Your task to perform on an android device: Search for bose quietcomfort 35 on costco, select the first entry, add it to the cart, then select checkout. Image 0: 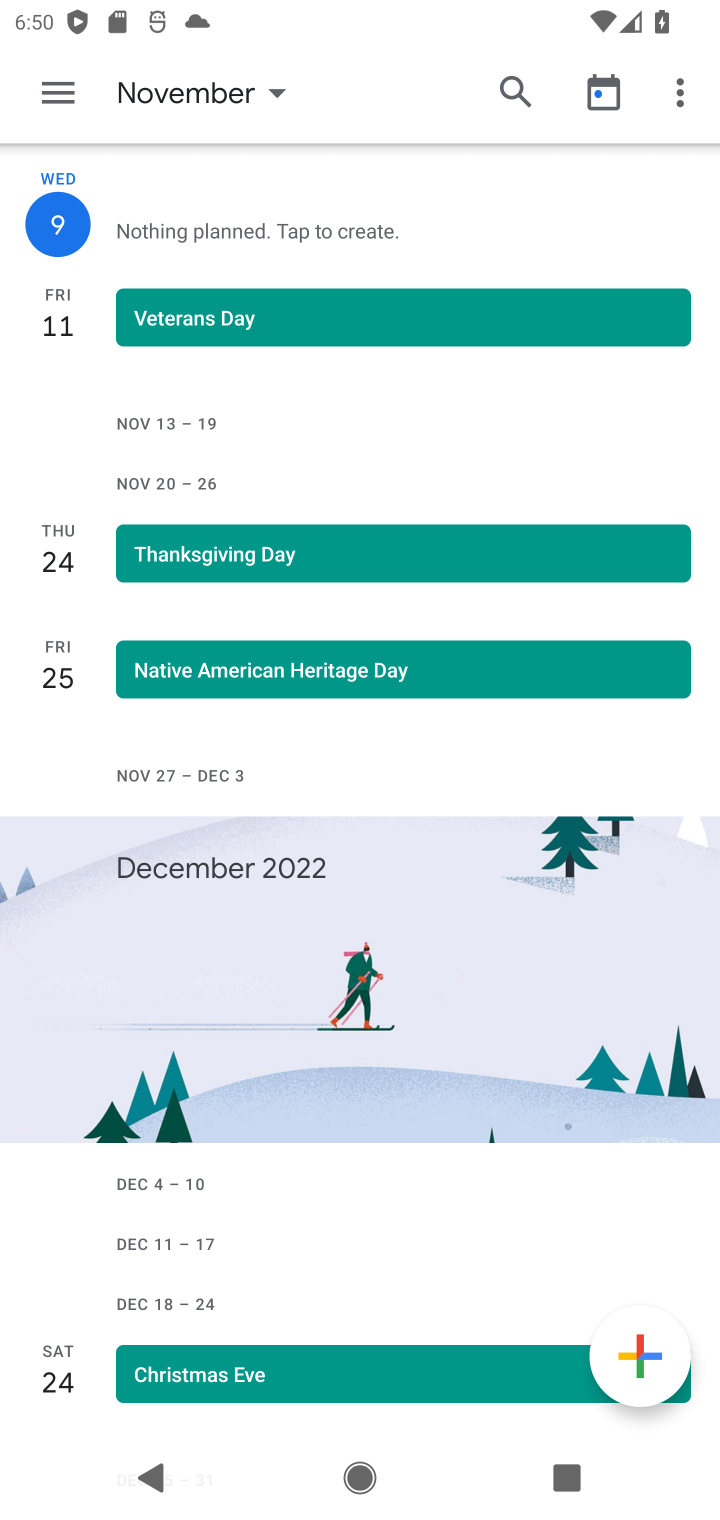
Step 0: press home button
Your task to perform on an android device: Search for bose quietcomfort 35 on costco, select the first entry, add it to the cart, then select checkout. Image 1: 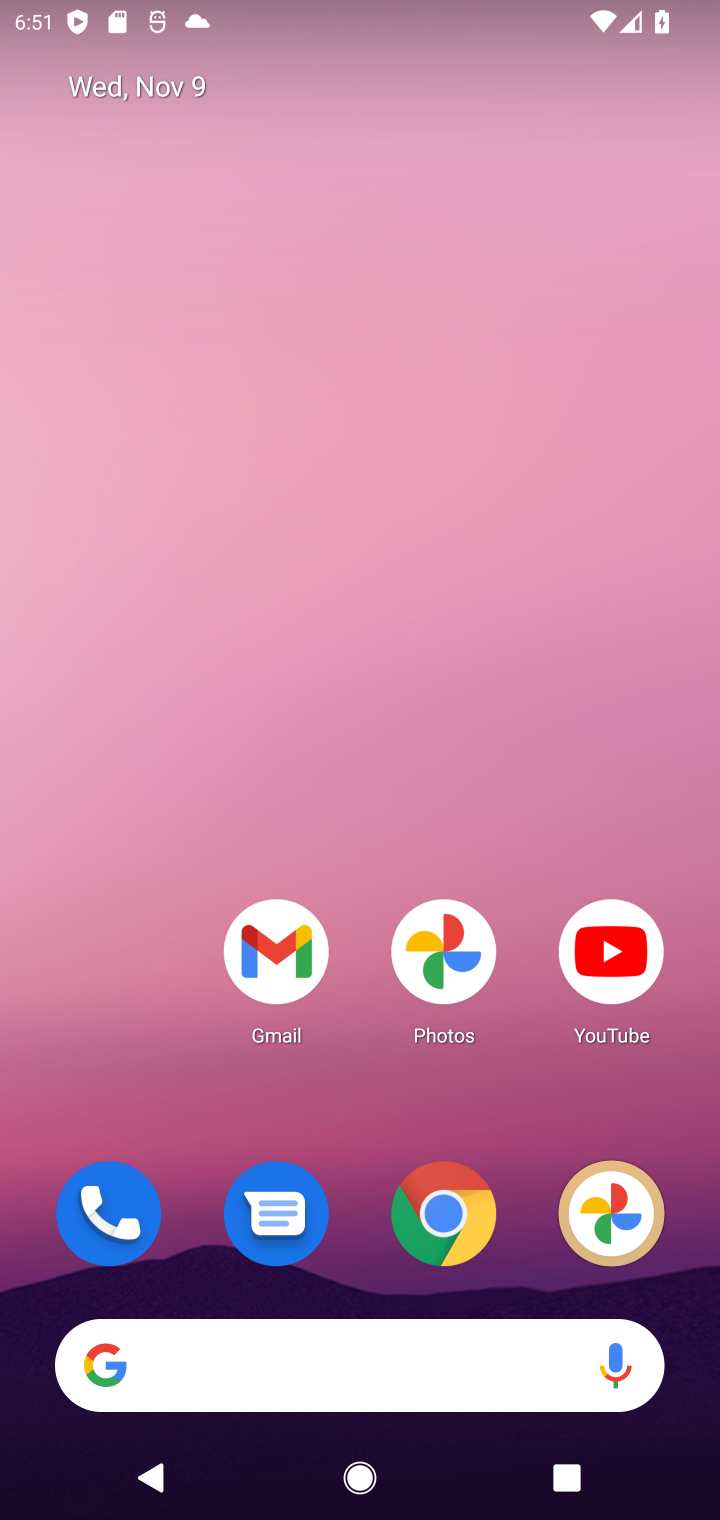
Step 1: click (452, 1222)
Your task to perform on an android device: Search for bose quietcomfort 35 on costco, select the first entry, add it to the cart, then select checkout. Image 2: 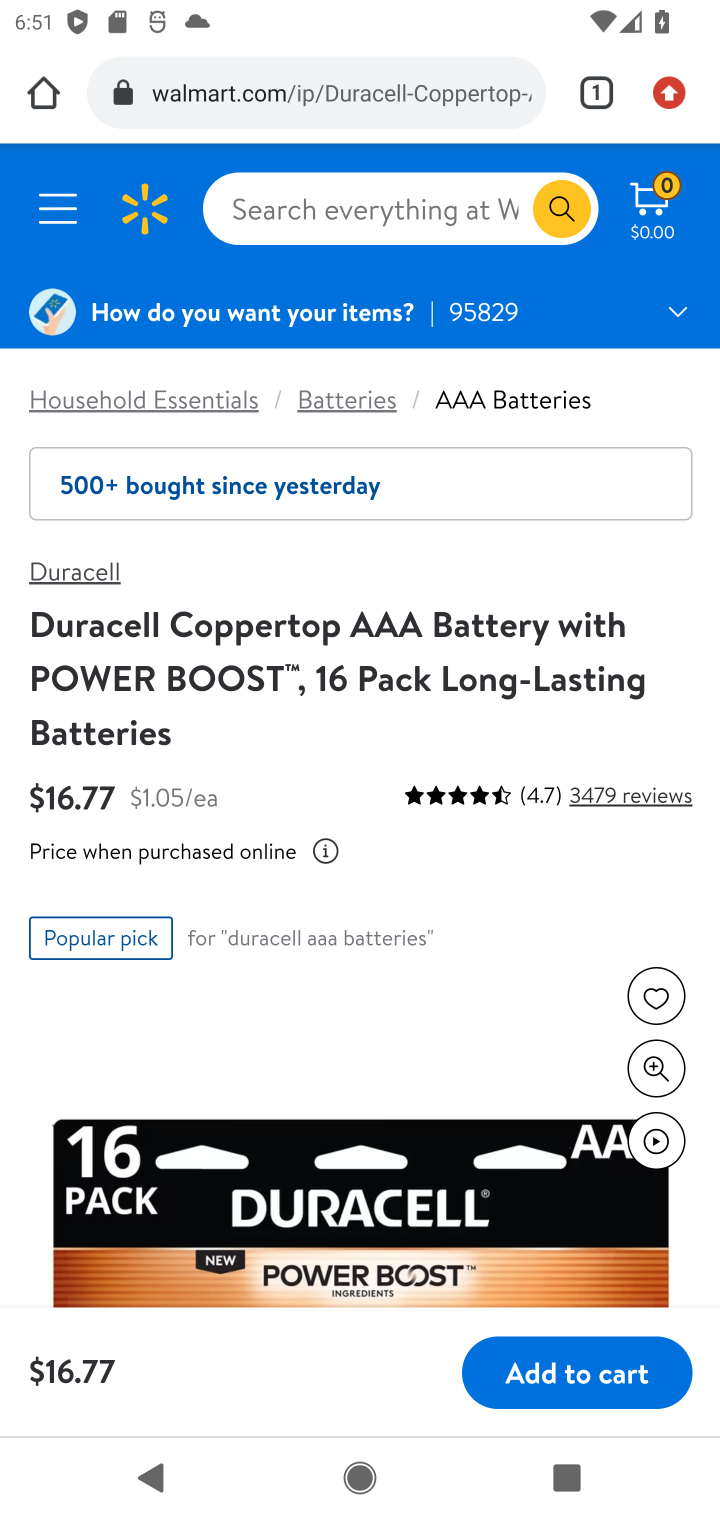
Step 2: click (318, 80)
Your task to perform on an android device: Search for bose quietcomfort 35 on costco, select the first entry, add it to the cart, then select checkout. Image 3: 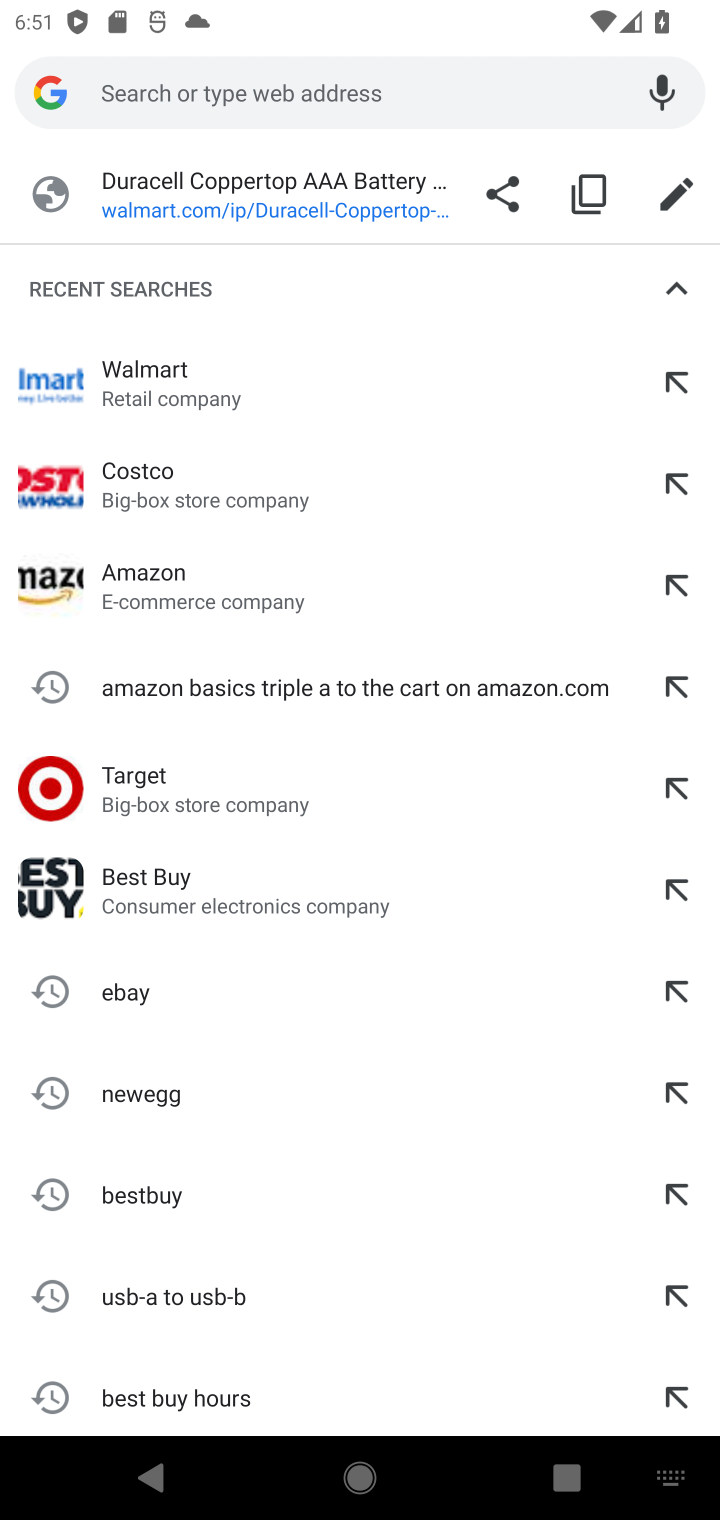
Step 3: type "costco"
Your task to perform on an android device: Search for bose quietcomfort 35 on costco, select the first entry, add it to the cart, then select checkout. Image 4: 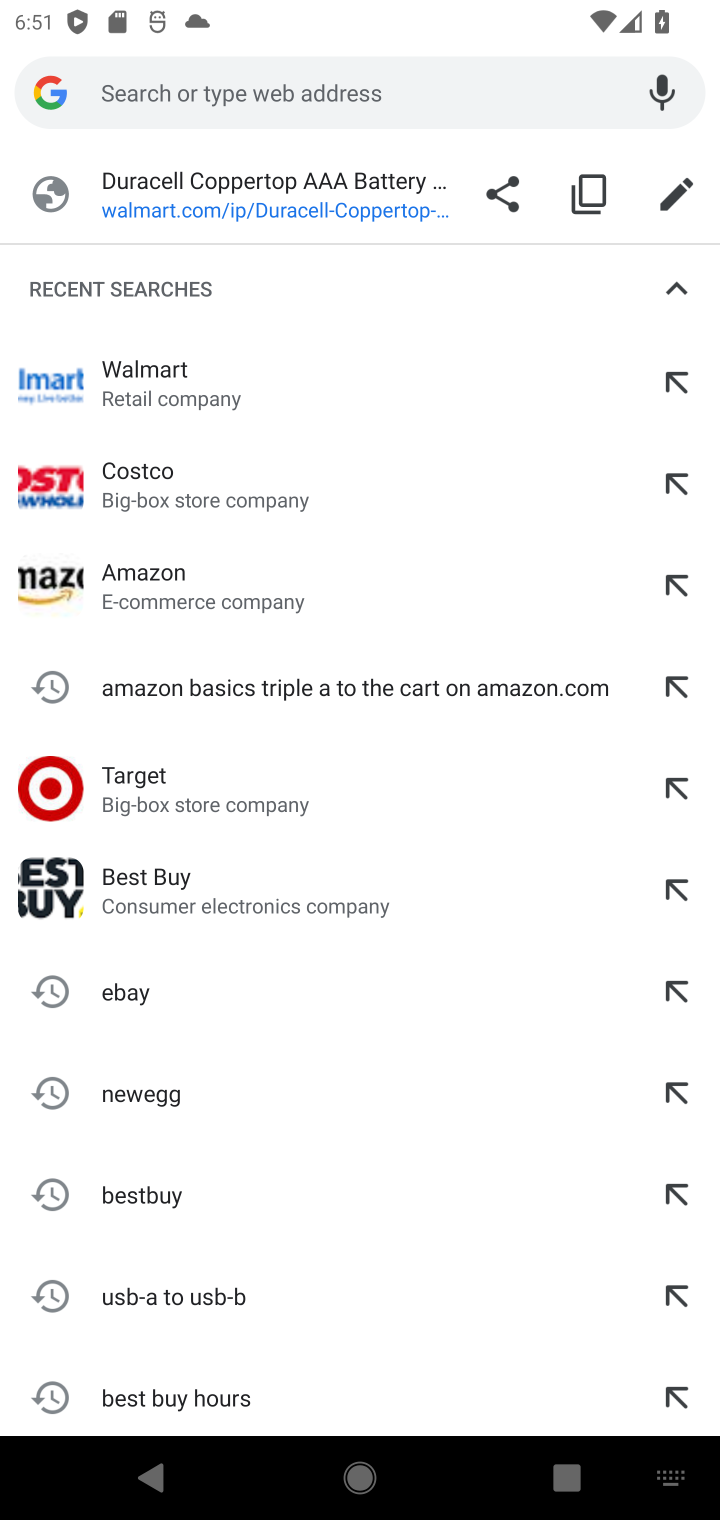
Step 4: click (141, 472)
Your task to perform on an android device: Search for bose quietcomfort 35 on costco, select the first entry, add it to the cart, then select checkout. Image 5: 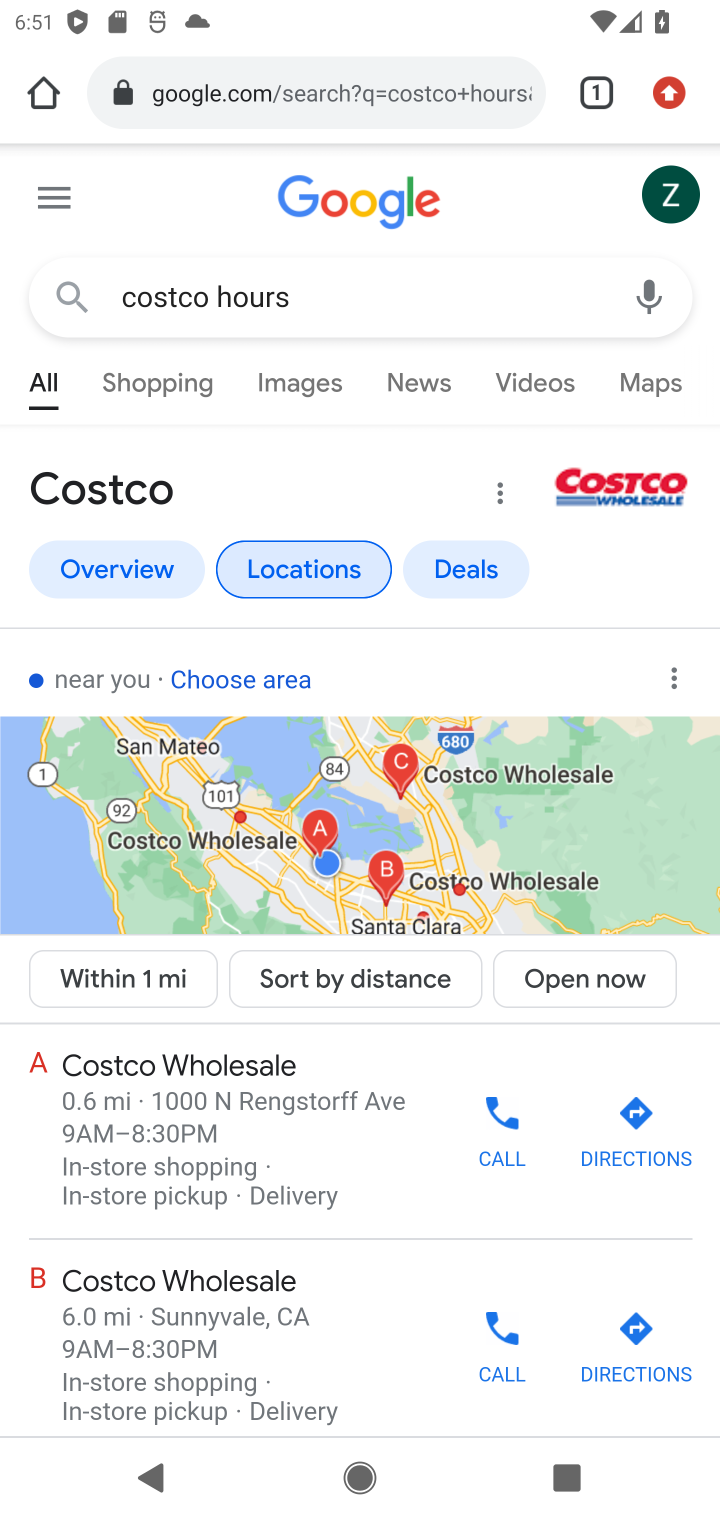
Step 5: drag from (286, 1076) to (366, 191)
Your task to perform on an android device: Search for bose quietcomfort 35 on costco, select the first entry, add it to the cart, then select checkout. Image 6: 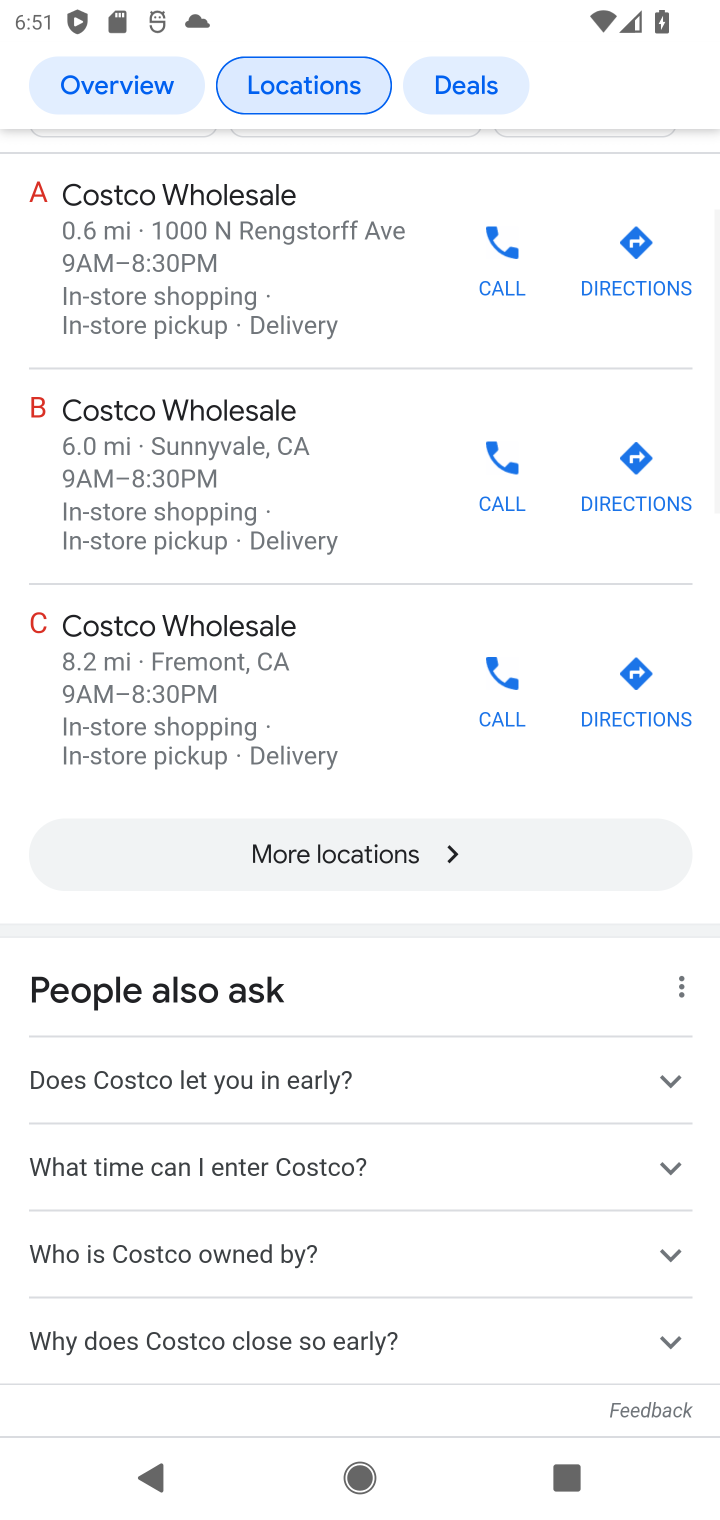
Step 6: drag from (136, 1281) to (179, 343)
Your task to perform on an android device: Search for bose quietcomfort 35 on costco, select the first entry, add it to the cart, then select checkout. Image 7: 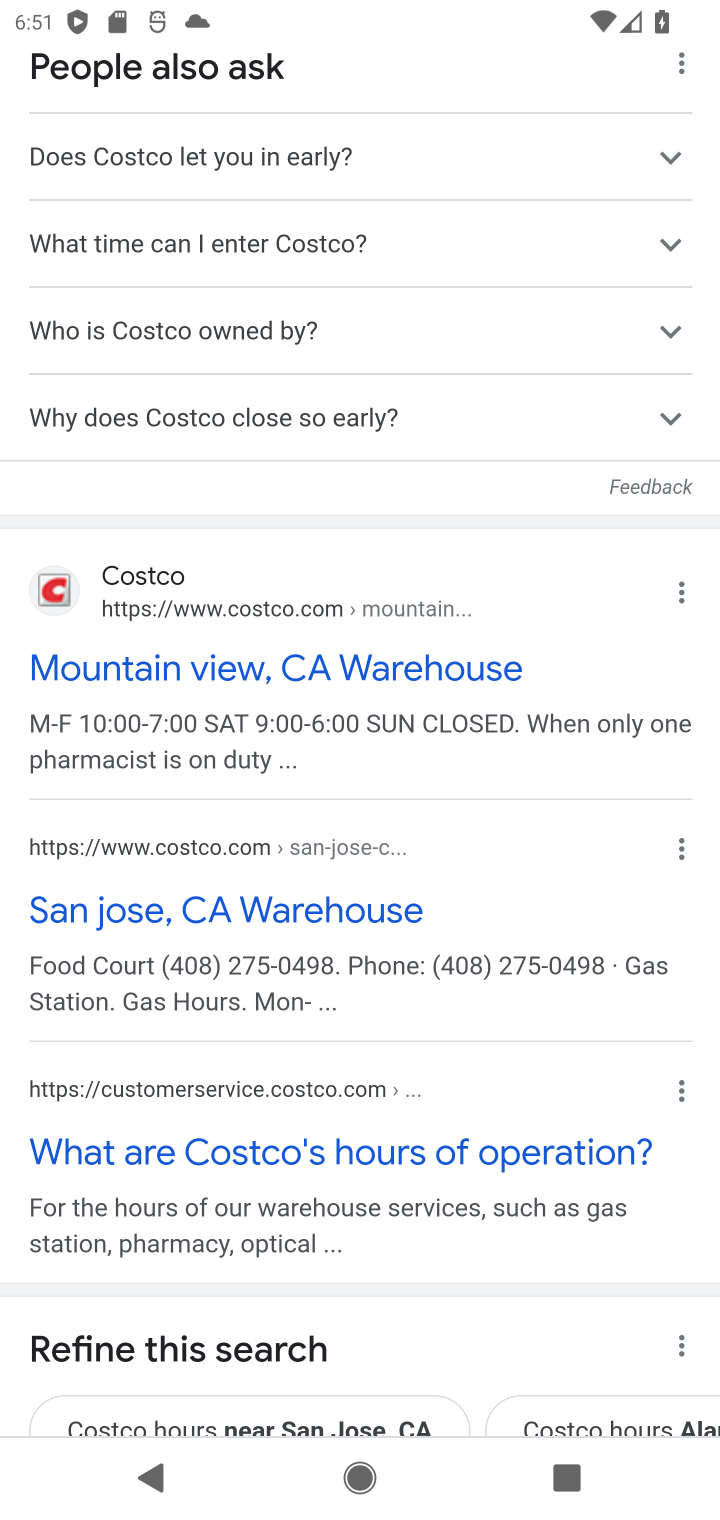
Step 7: click (142, 659)
Your task to perform on an android device: Search for bose quietcomfort 35 on costco, select the first entry, add it to the cart, then select checkout. Image 8: 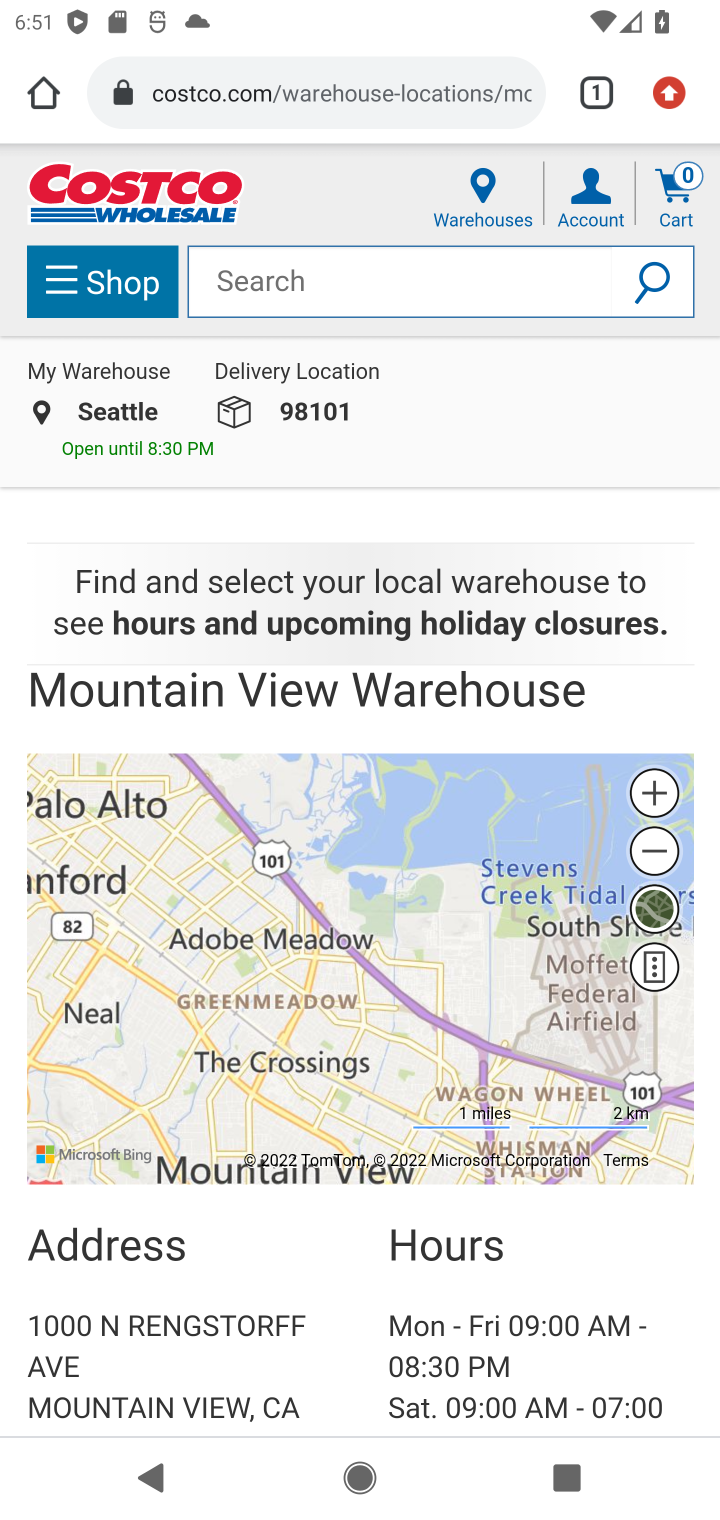
Step 8: drag from (280, 1201) to (534, 309)
Your task to perform on an android device: Search for bose quietcomfort 35 on costco, select the first entry, add it to the cart, then select checkout. Image 9: 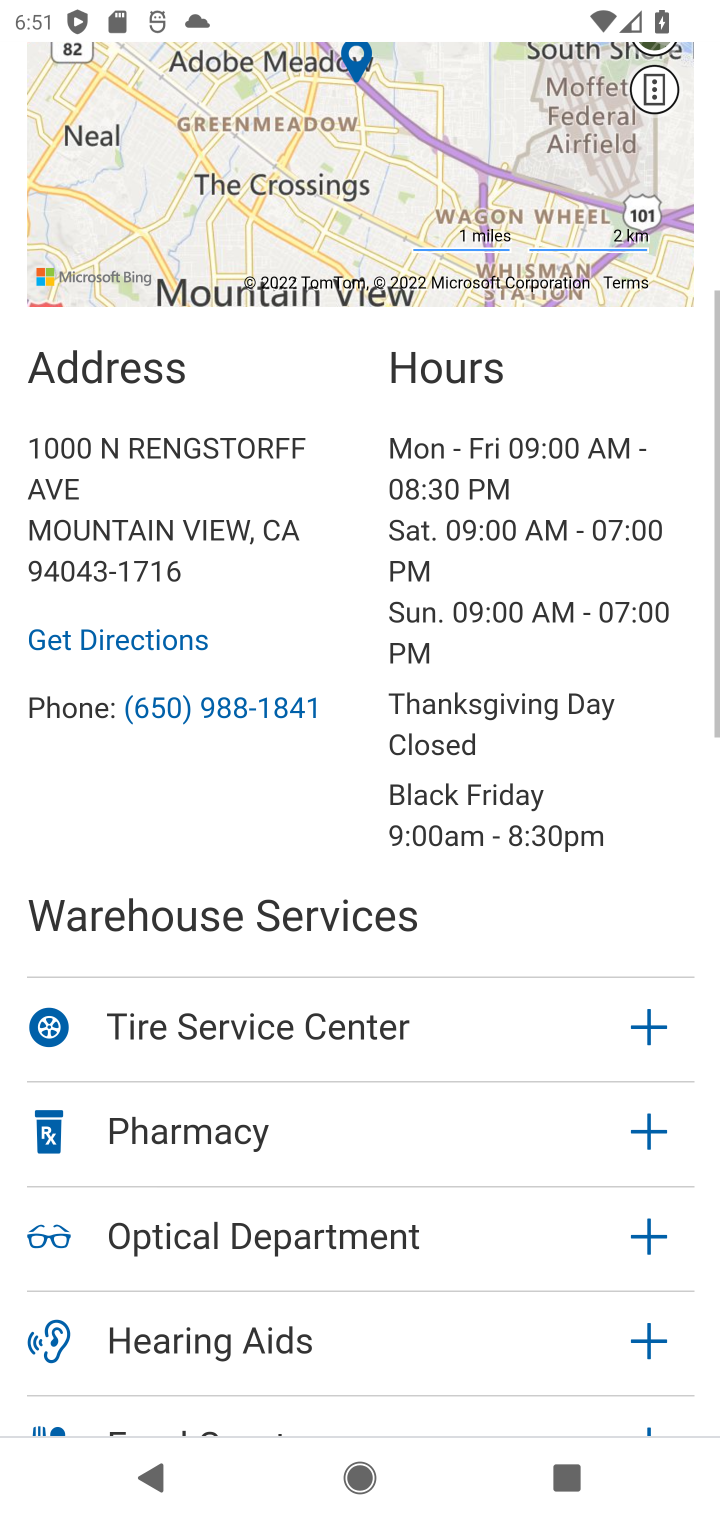
Step 9: drag from (275, 543) to (334, 1281)
Your task to perform on an android device: Search for bose quietcomfort 35 on costco, select the first entry, add it to the cart, then select checkout. Image 10: 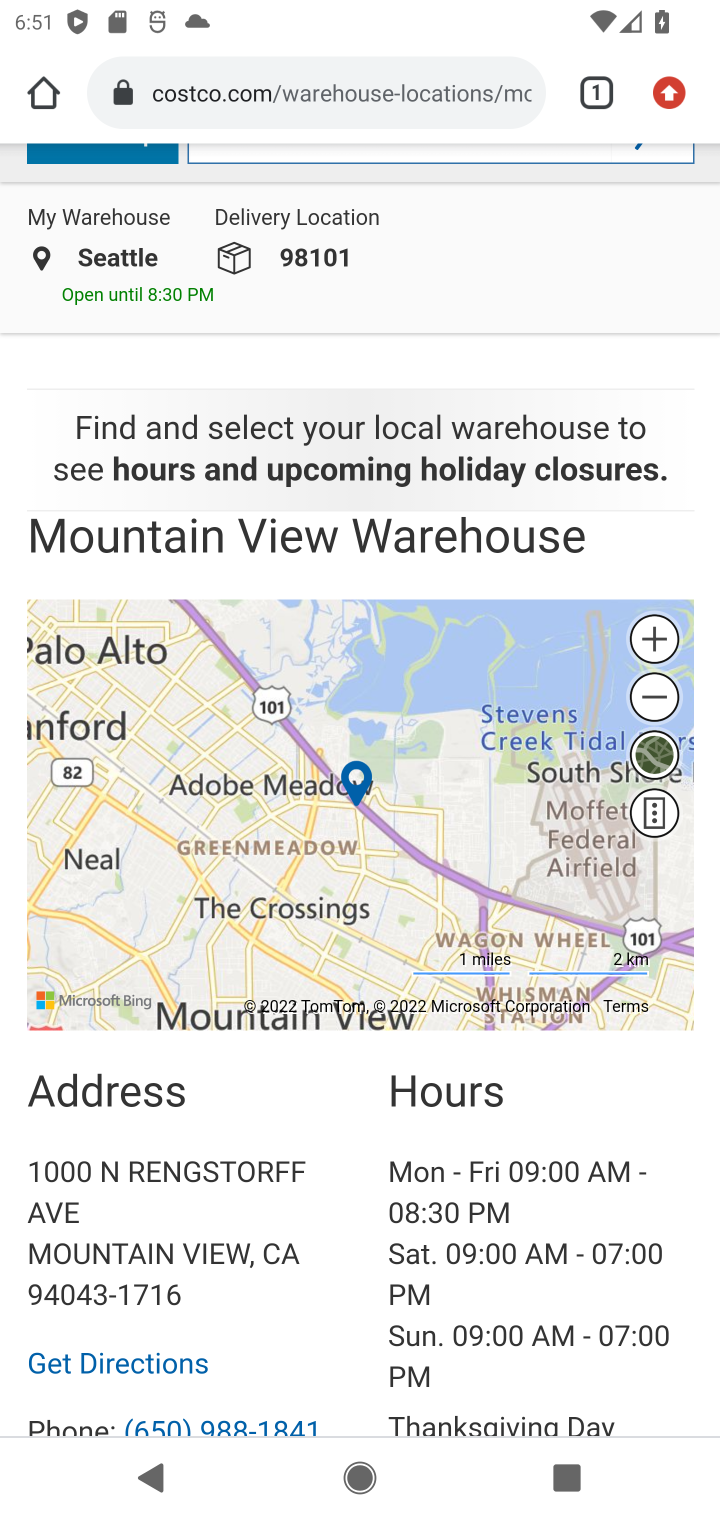
Step 10: drag from (353, 765) to (310, 1447)
Your task to perform on an android device: Search for bose quietcomfort 35 on costco, select the first entry, add it to the cart, then select checkout. Image 11: 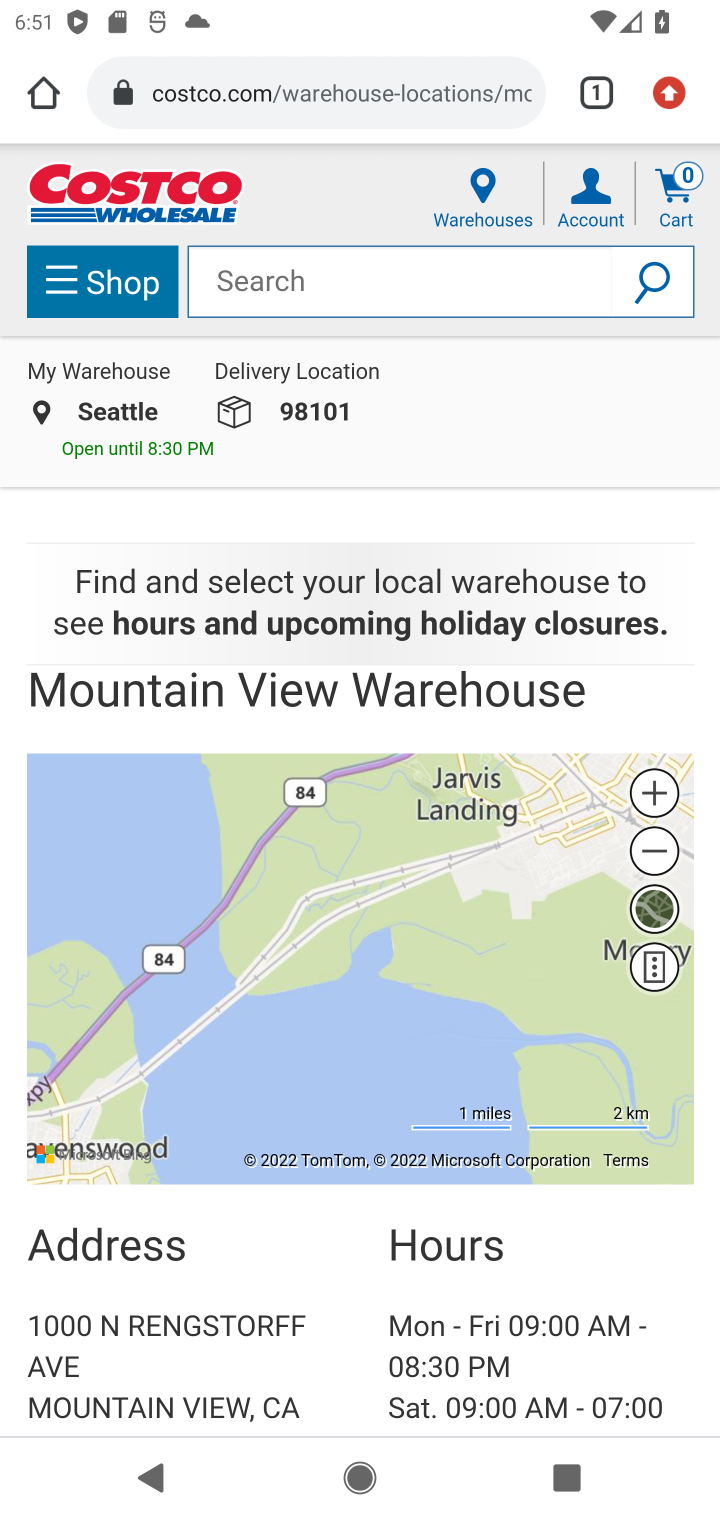
Step 11: click (261, 280)
Your task to perform on an android device: Search for bose quietcomfort 35 on costco, select the first entry, add it to the cart, then select checkout. Image 12: 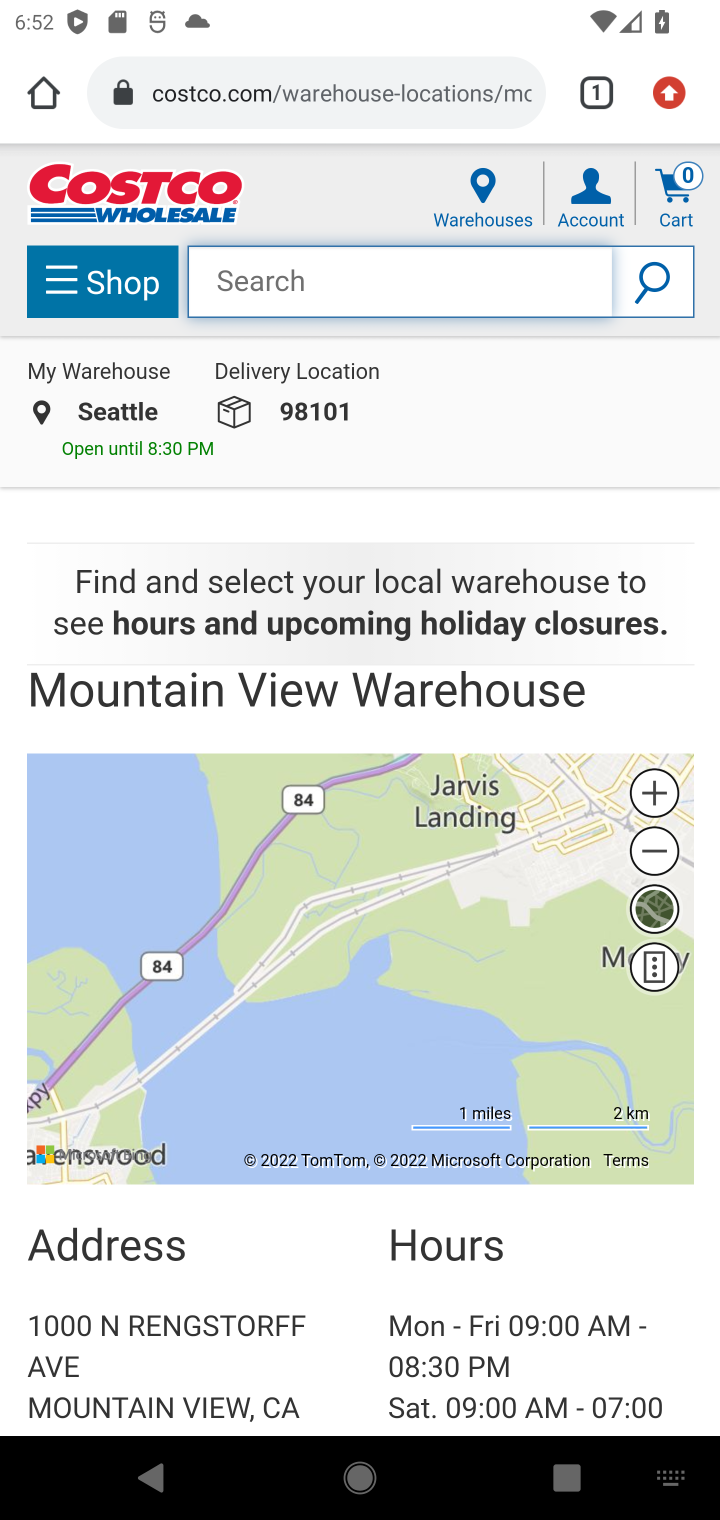
Step 12: type "bose quietcomfort 35"
Your task to perform on an android device: Search for bose quietcomfort 35 on costco, select the first entry, add it to the cart, then select checkout. Image 13: 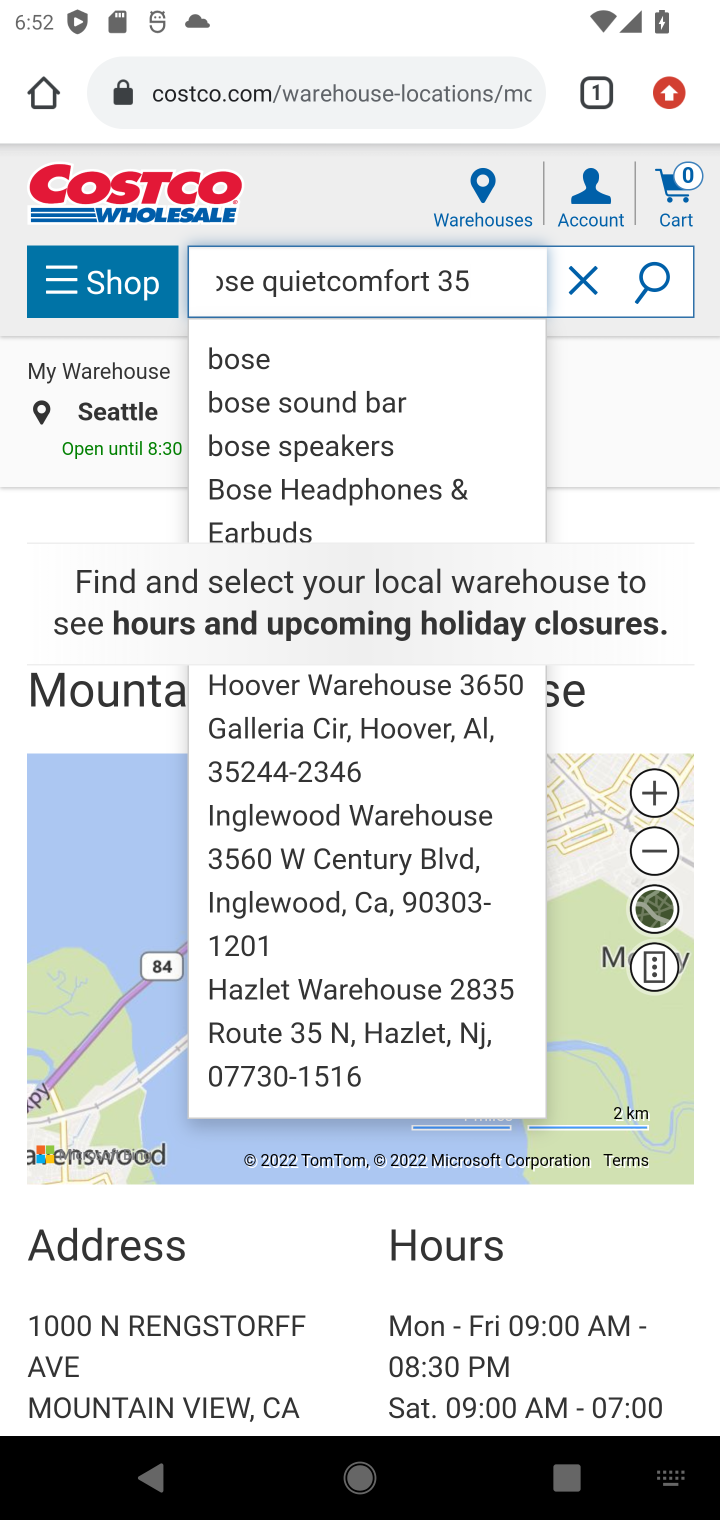
Step 13: click (265, 481)
Your task to perform on an android device: Search for bose quietcomfort 35 on costco, select the first entry, add it to the cart, then select checkout. Image 14: 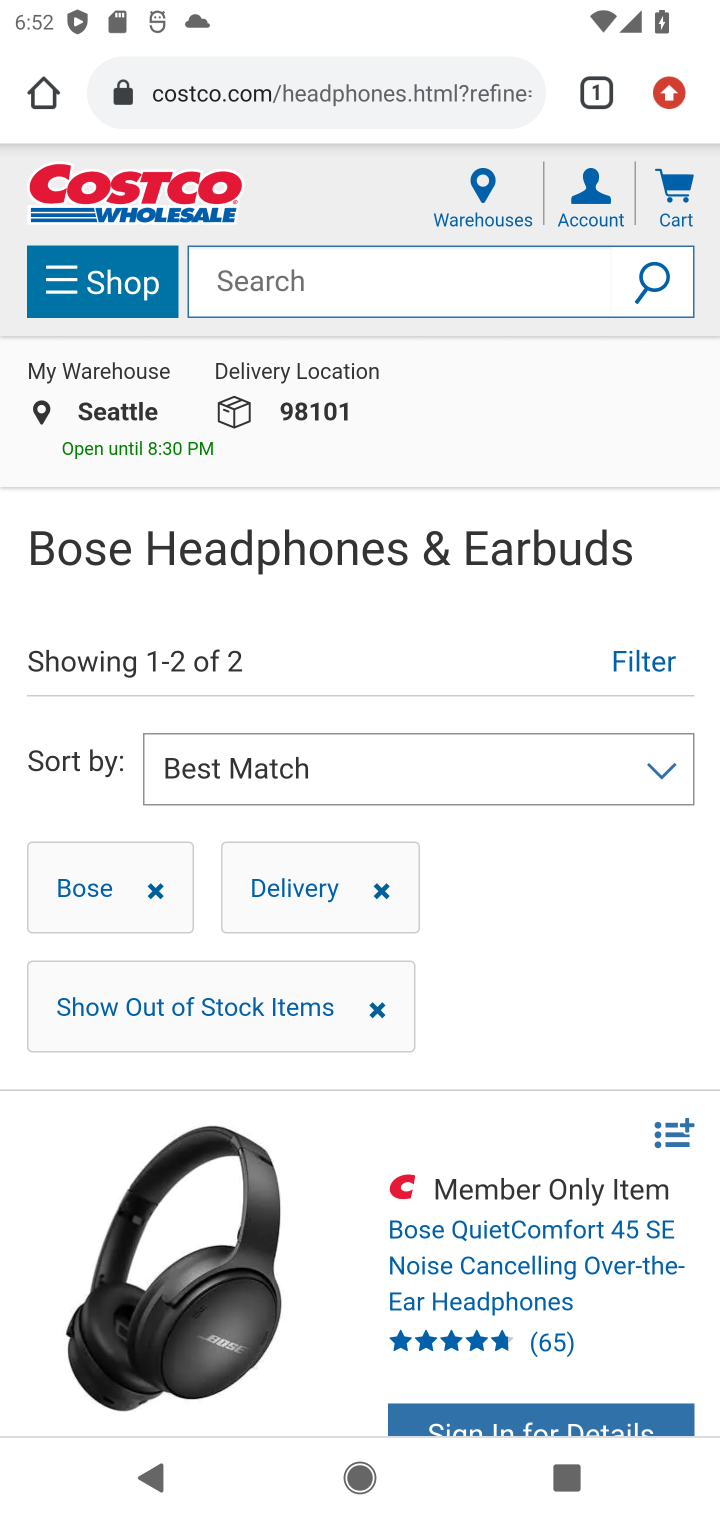
Step 14: click (547, 1245)
Your task to perform on an android device: Search for bose quietcomfort 35 on costco, select the first entry, add it to the cart, then select checkout. Image 15: 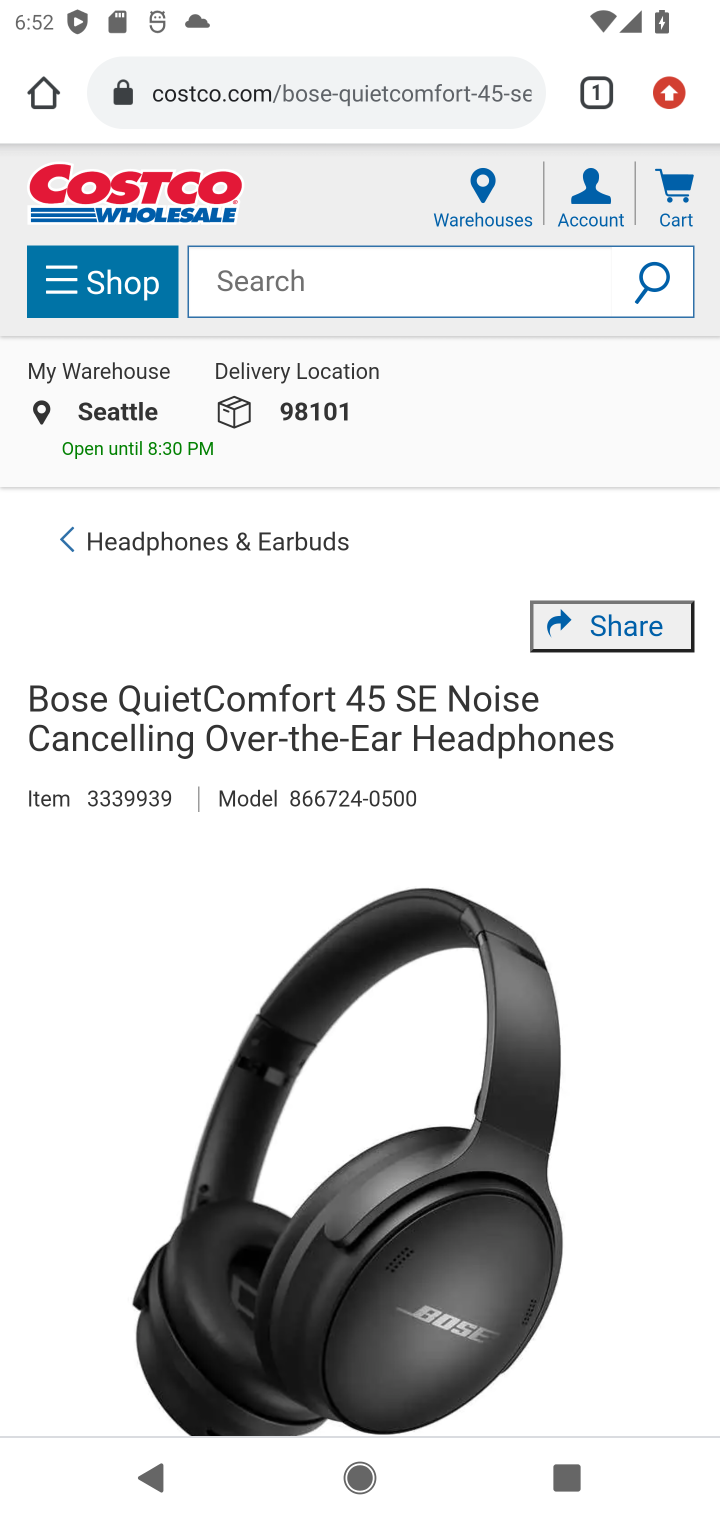
Step 15: drag from (543, 1219) to (646, 519)
Your task to perform on an android device: Search for bose quietcomfort 35 on costco, select the first entry, add it to the cart, then select checkout. Image 16: 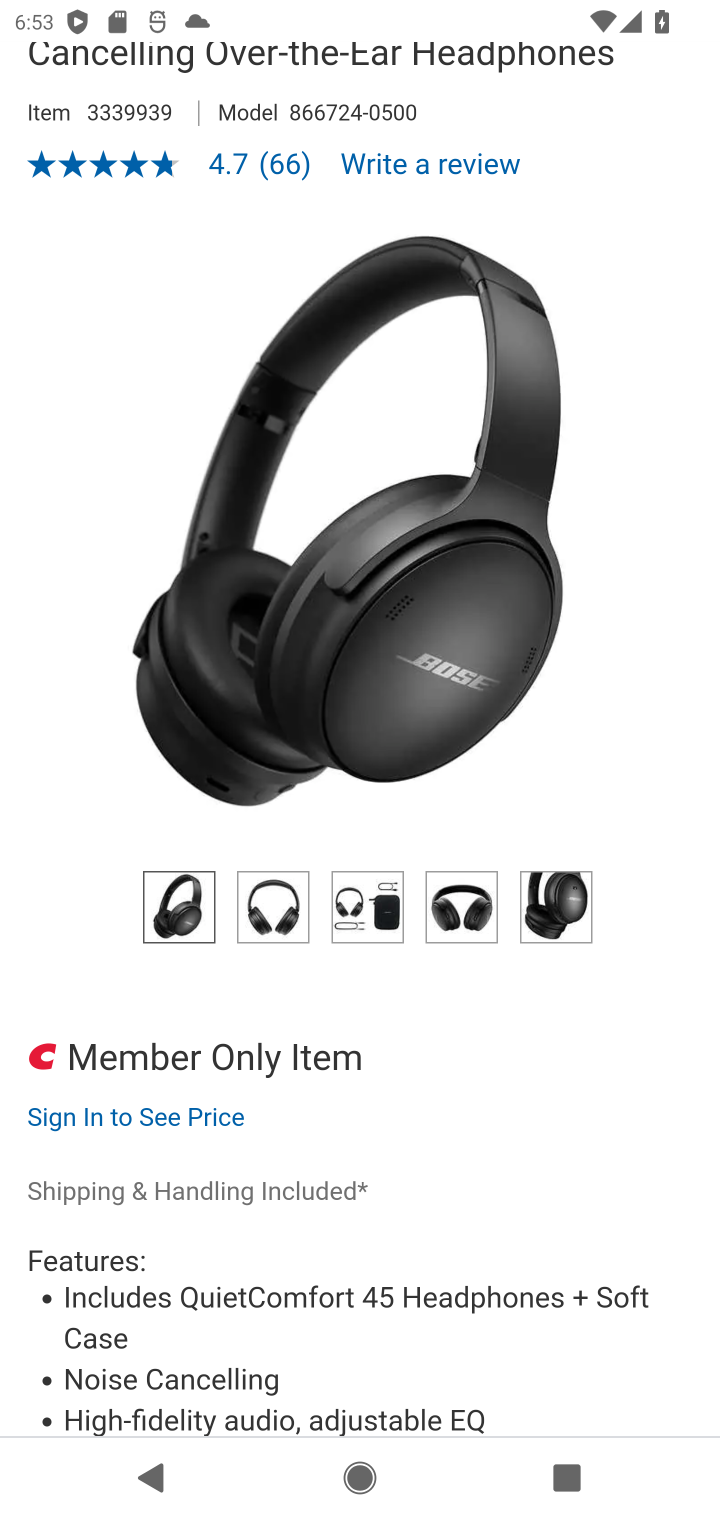
Step 16: drag from (358, 1033) to (350, 612)
Your task to perform on an android device: Search for bose quietcomfort 35 on costco, select the first entry, add it to the cart, then select checkout. Image 17: 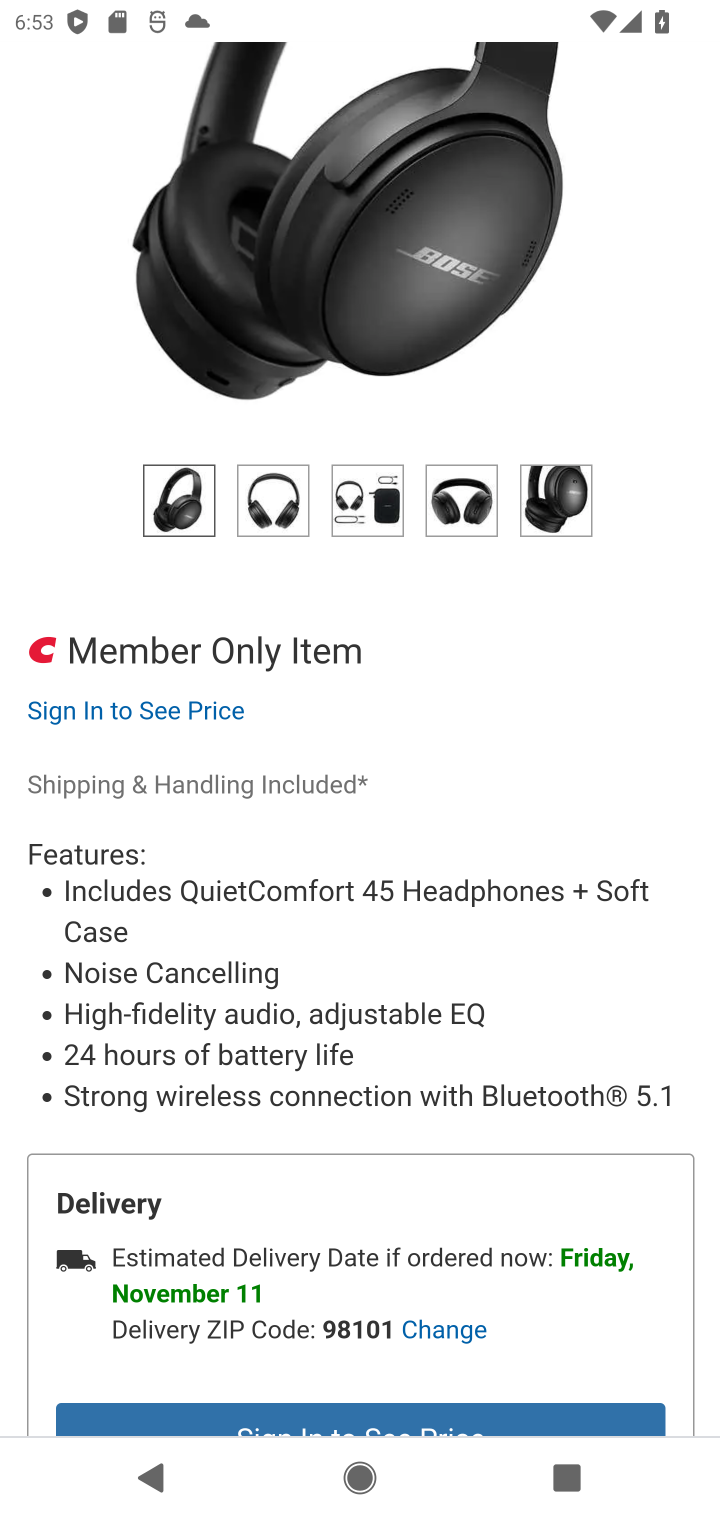
Step 17: drag from (264, 1142) to (207, 456)
Your task to perform on an android device: Search for bose quietcomfort 35 on costco, select the first entry, add it to the cart, then select checkout. Image 18: 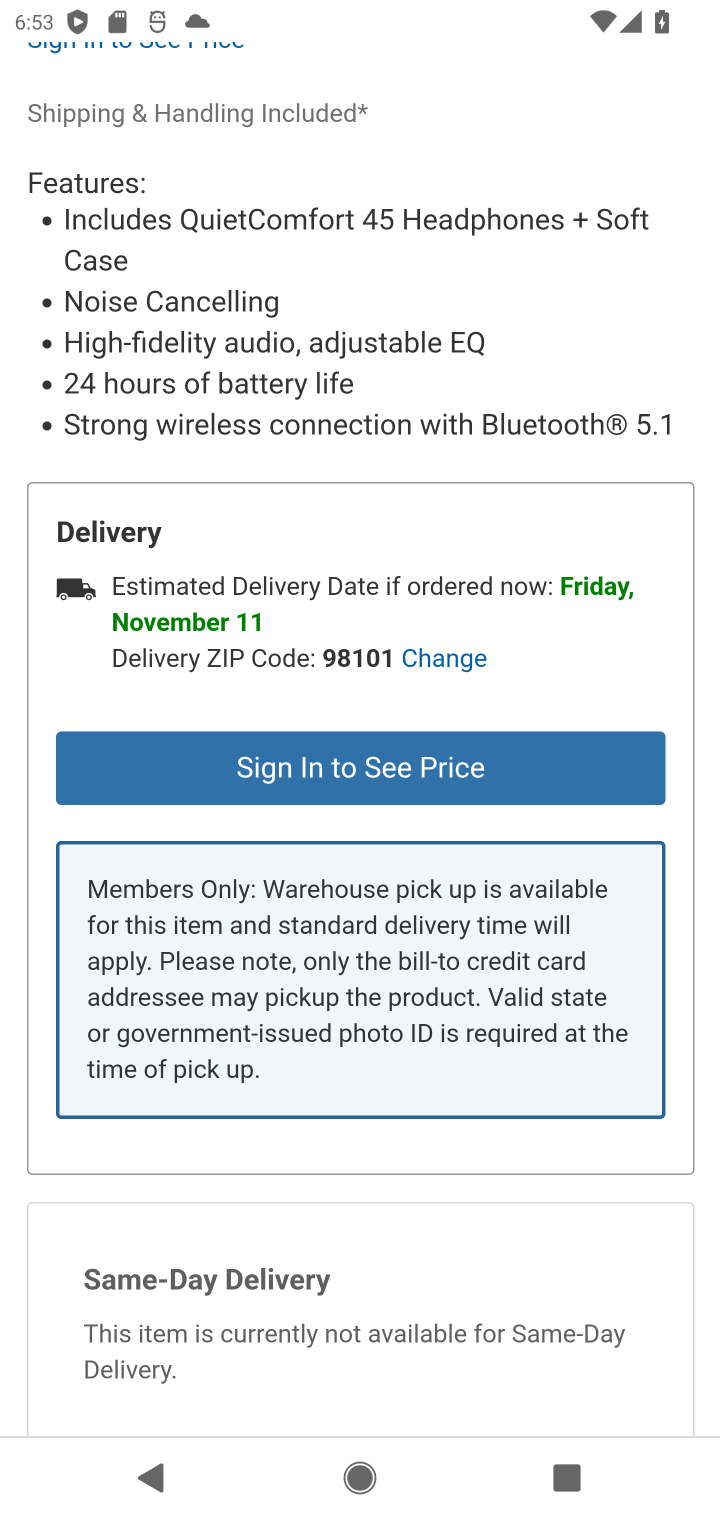
Step 18: drag from (358, 1162) to (360, 687)
Your task to perform on an android device: Search for bose quietcomfort 35 on costco, select the first entry, add it to the cart, then select checkout. Image 19: 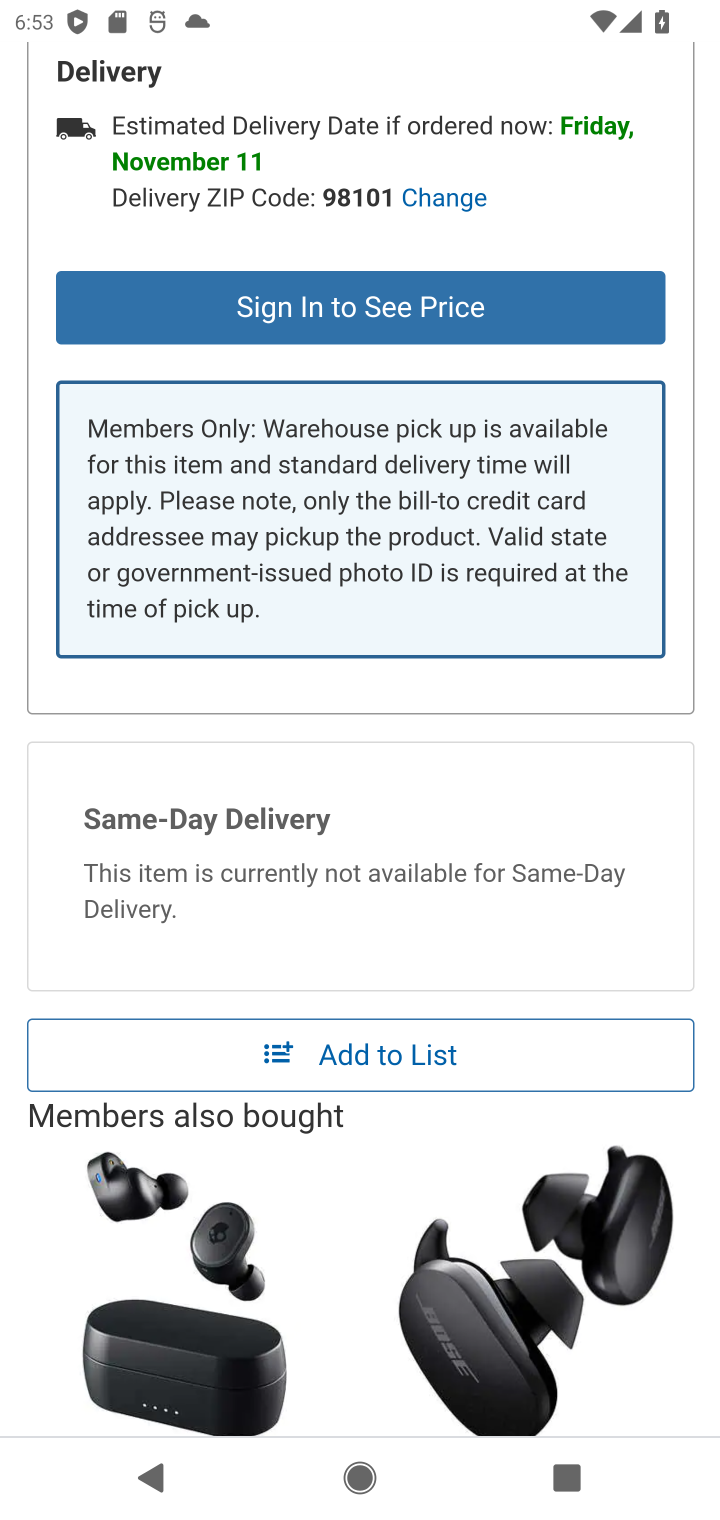
Step 19: click (352, 1057)
Your task to perform on an android device: Search for bose quietcomfort 35 on costco, select the first entry, add it to the cart, then select checkout. Image 20: 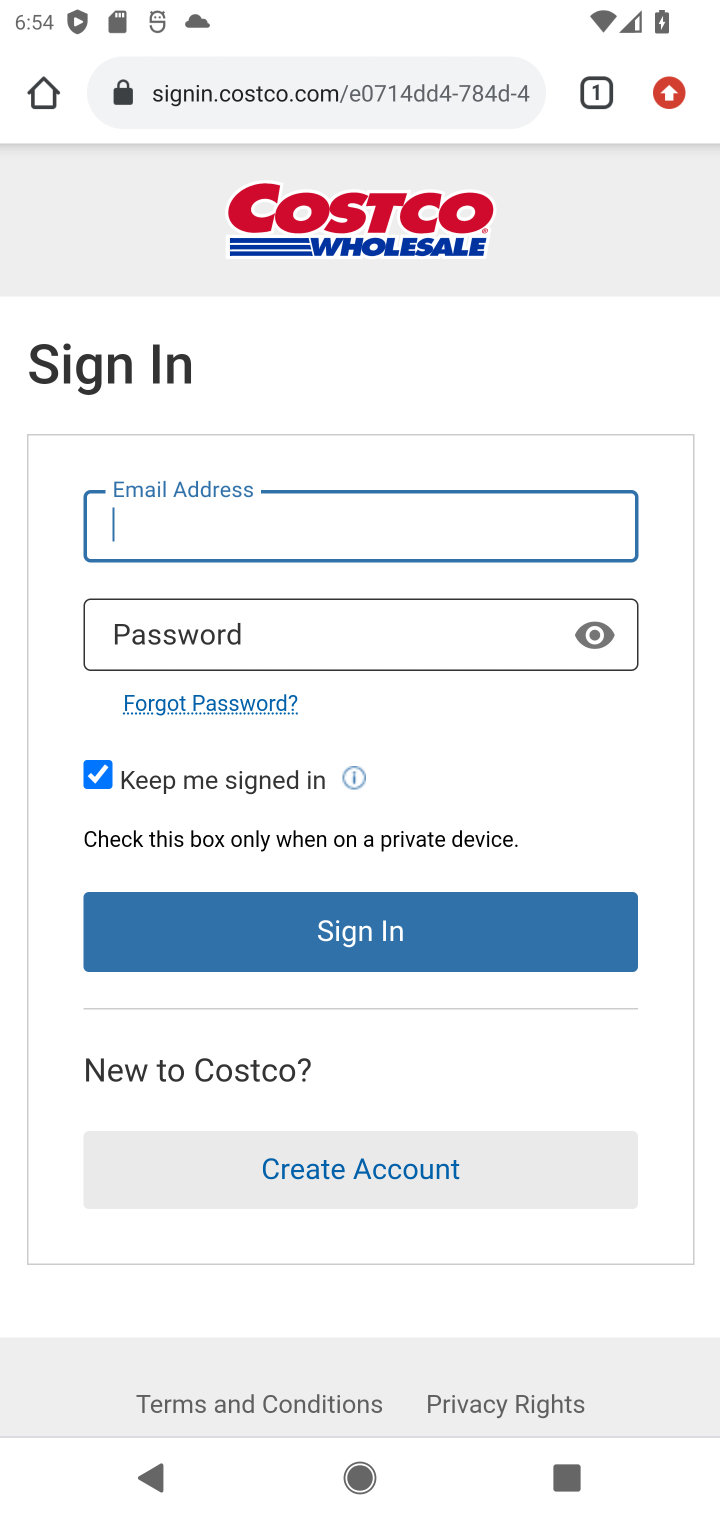
Step 20: task complete